Your task to perform on an android device: Open maps Image 0: 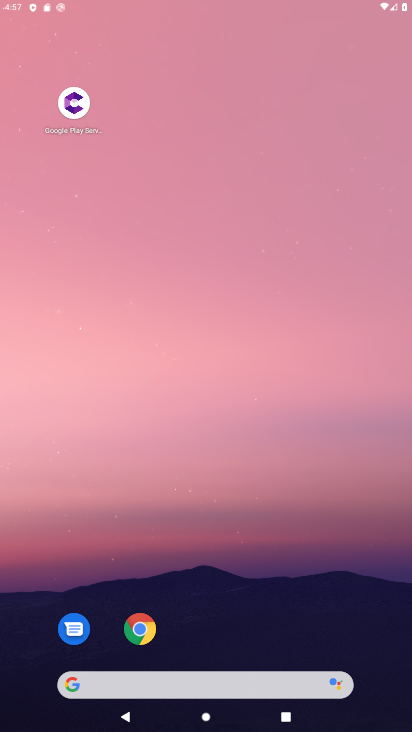
Step 0: drag from (243, 630) to (6, 158)
Your task to perform on an android device: Open maps Image 1: 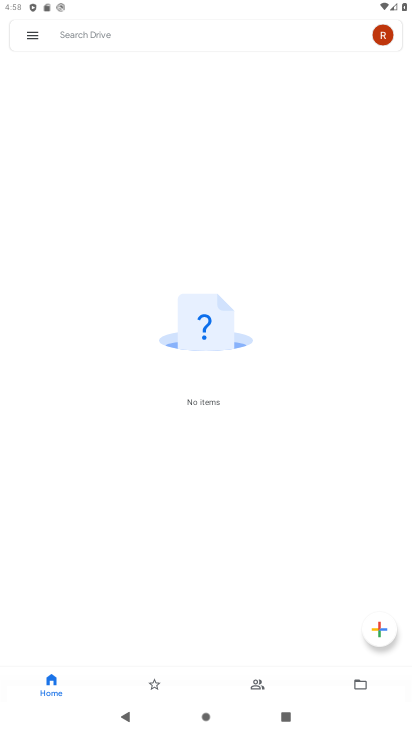
Step 1: press home button
Your task to perform on an android device: Open maps Image 2: 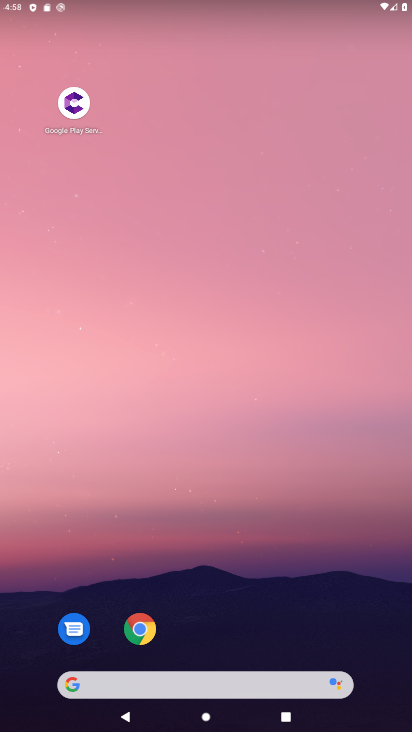
Step 2: drag from (222, 588) to (43, 29)
Your task to perform on an android device: Open maps Image 3: 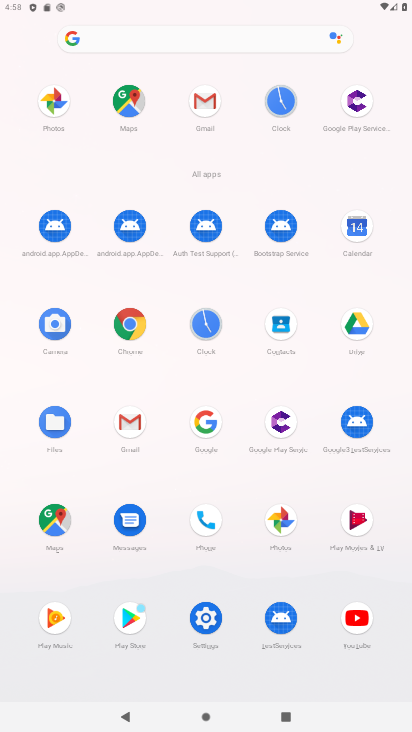
Step 3: click (135, 104)
Your task to perform on an android device: Open maps Image 4: 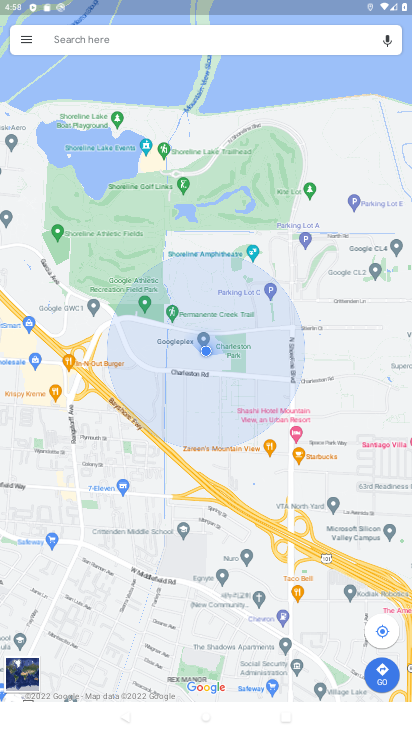
Step 4: task complete